Your task to perform on an android device: set the stopwatch Image 0: 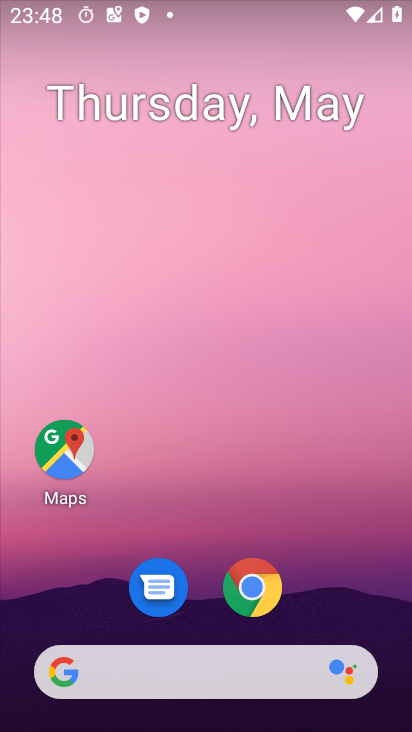
Step 0: drag from (340, 599) to (357, 12)
Your task to perform on an android device: set the stopwatch Image 1: 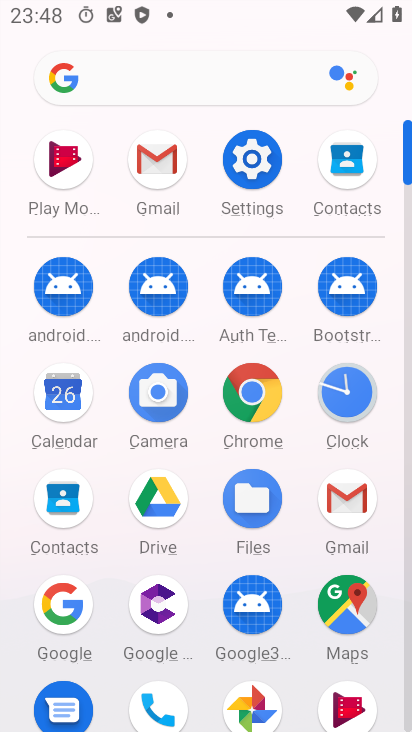
Step 1: click (344, 387)
Your task to perform on an android device: set the stopwatch Image 2: 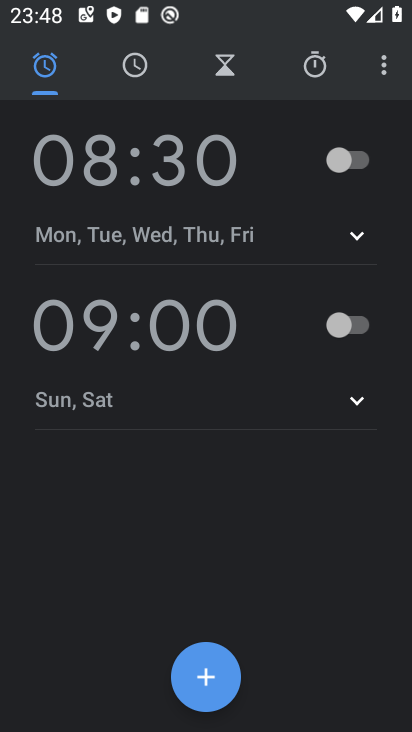
Step 2: click (308, 73)
Your task to perform on an android device: set the stopwatch Image 3: 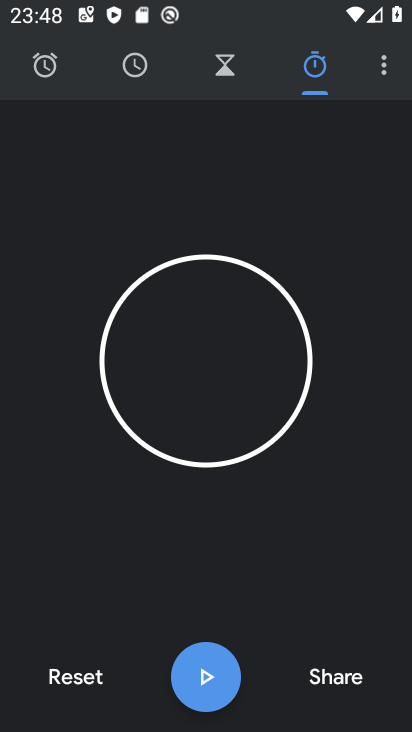
Step 3: click (92, 672)
Your task to perform on an android device: set the stopwatch Image 4: 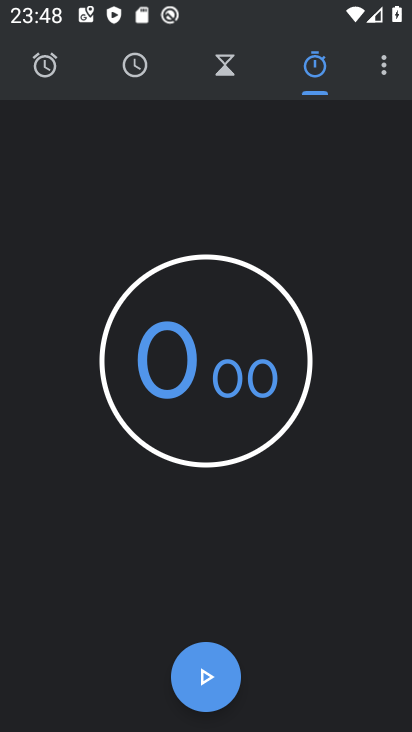
Step 4: click (196, 676)
Your task to perform on an android device: set the stopwatch Image 5: 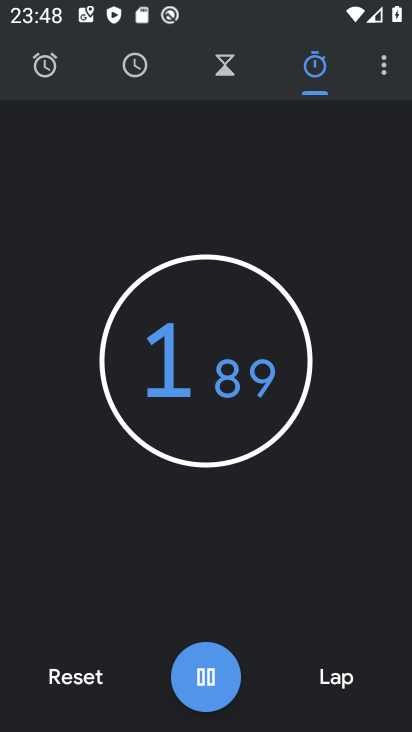
Step 5: click (196, 676)
Your task to perform on an android device: set the stopwatch Image 6: 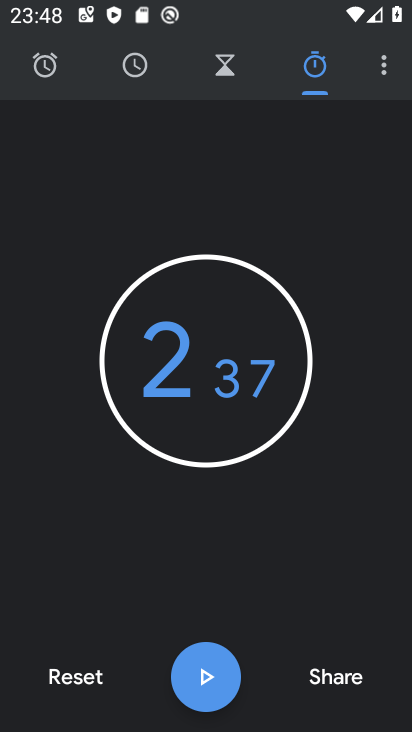
Step 6: task complete